Your task to perform on an android device: Show me recent news Image 0: 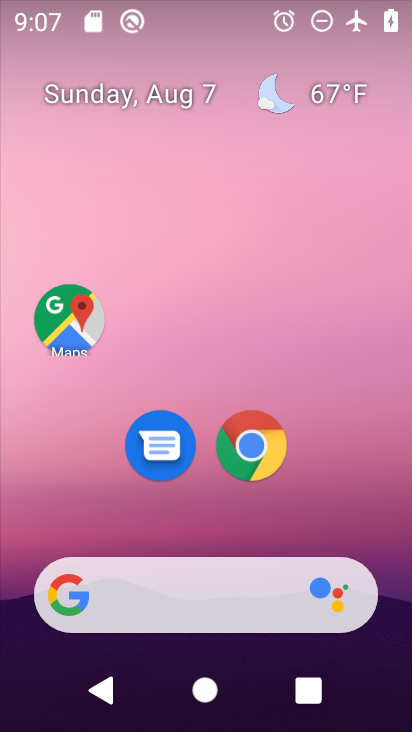
Step 0: drag from (6, 228) to (361, 254)
Your task to perform on an android device: Show me recent news Image 1: 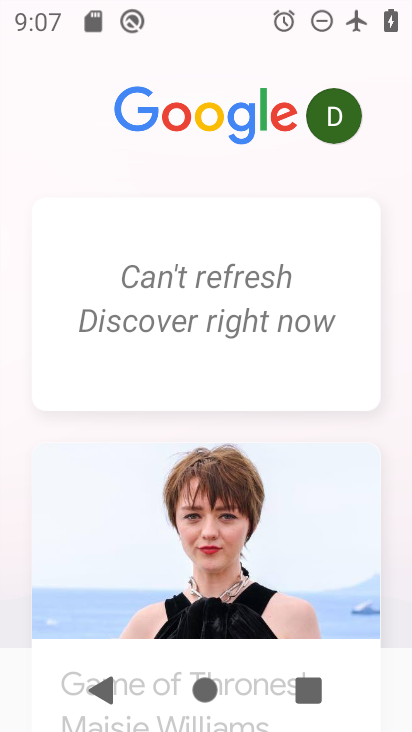
Step 1: task complete